Your task to perform on an android device: Open Chrome and go to the settings page Image 0: 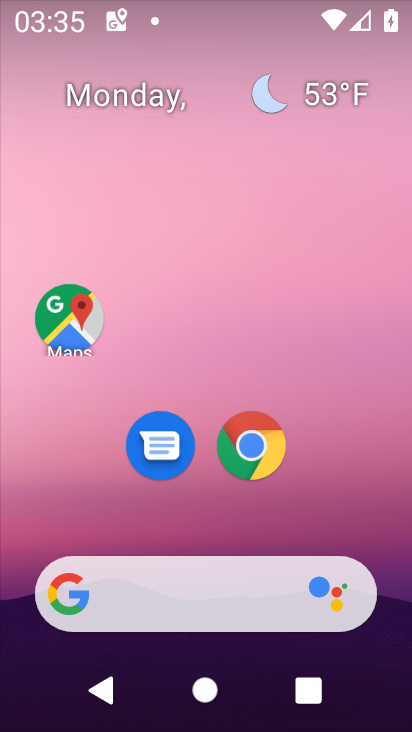
Step 0: click (253, 440)
Your task to perform on an android device: Open Chrome and go to the settings page Image 1: 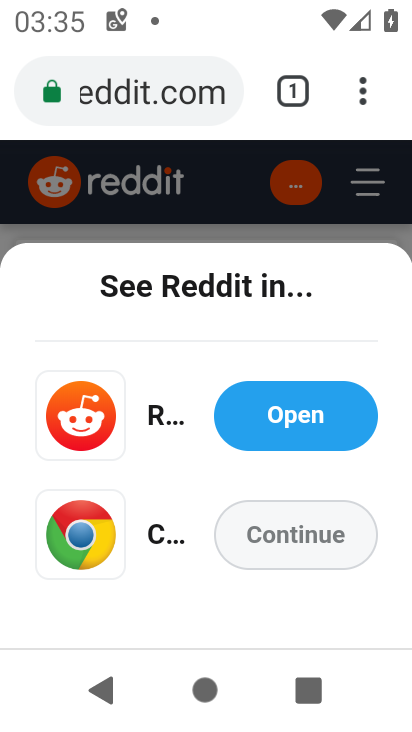
Step 1: click (366, 105)
Your task to perform on an android device: Open Chrome and go to the settings page Image 2: 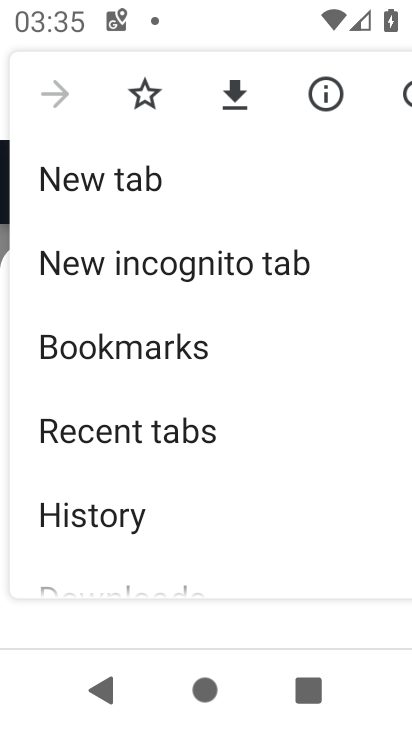
Step 2: drag from (192, 483) to (236, 105)
Your task to perform on an android device: Open Chrome and go to the settings page Image 3: 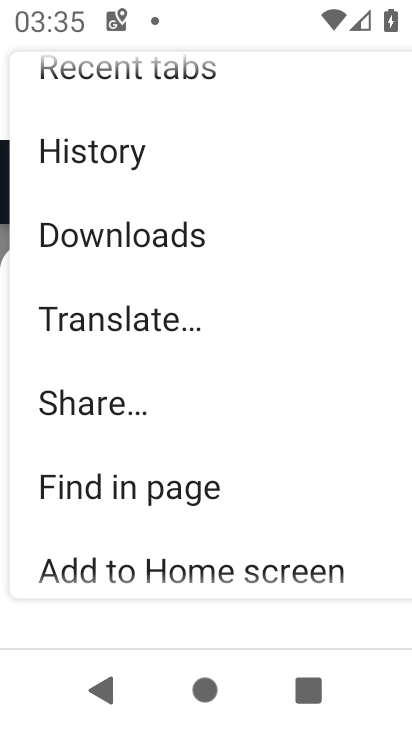
Step 3: drag from (154, 523) to (241, 180)
Your task to perform on an android device: Open Chrome and go to the settings page Image 4: 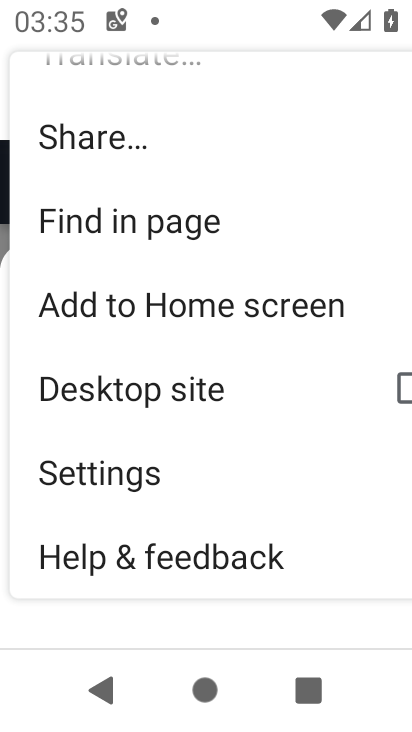
Step 4: click (159, 482)
Your task to perform on an android device: Open Chrome and go to the settings page Image 5: 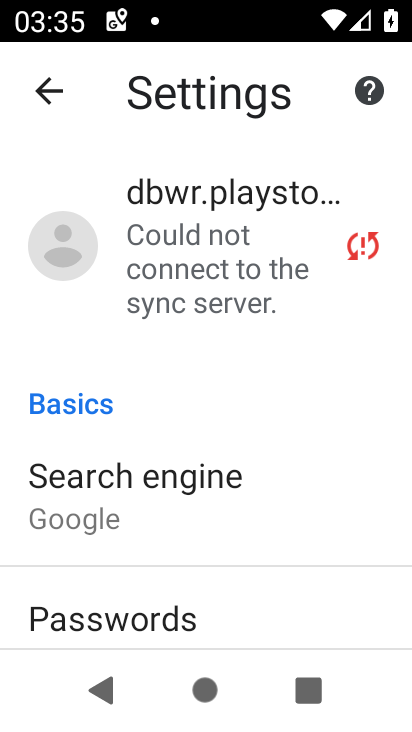
Step 5: task complete